Your task to perform on an android device: Open Chrome and go to settings Image 0: 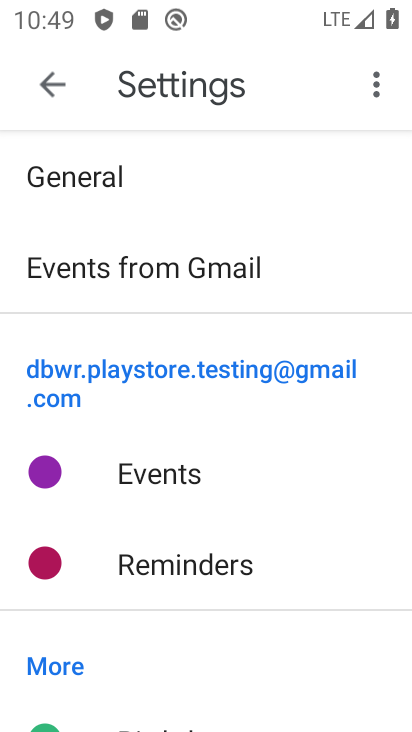
Step 0: press home button
Your task to perform on an android device: Open Chrome and go to settings Image 1: 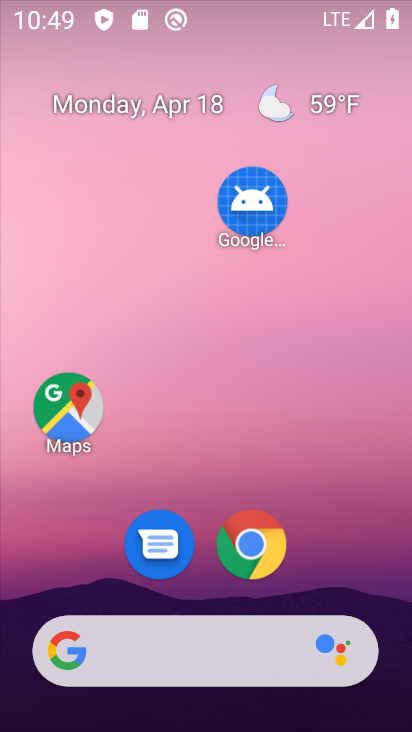
Step 1: drag from (209, 598) to (244, 166)
Your task to perform on an android device: Open Chrome and go to settings Image 2: 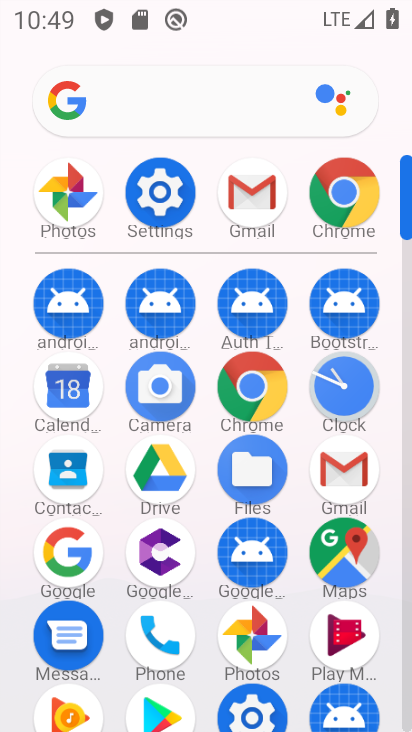
Step 2: click (243, 390)
Your task to perform on an android device: Open Chrome and go to settings Image 3: 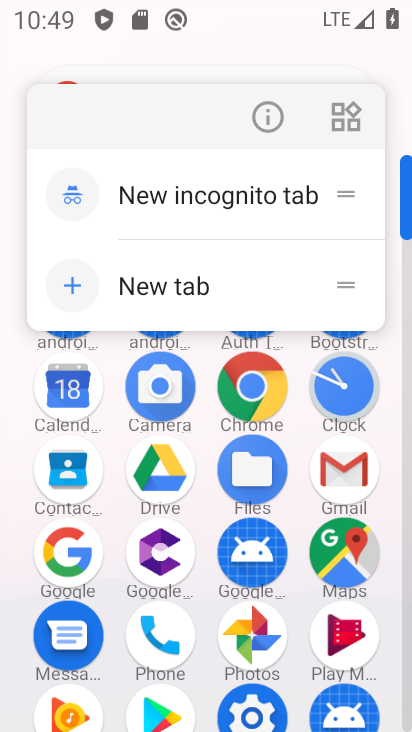
Step 3: click (255, 373)
Your task to perform on an android device: Open Chrome and go to settings Image 4: 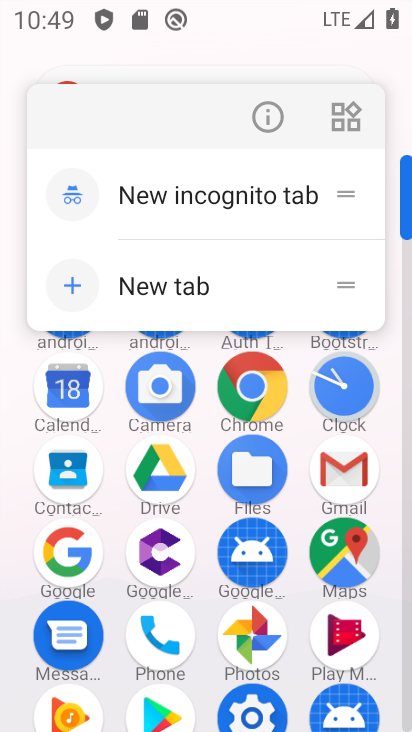
Step 4: click (253, 372)
Your task to perform on an android device: Open Chrome and go to settings Image 5: 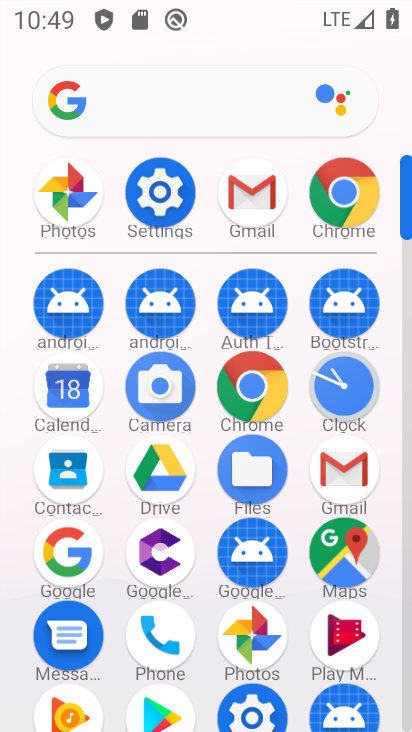
Step 5: click (253, 372)
Your task to perform on an android device: Open Chrome and go to settings Image 6: 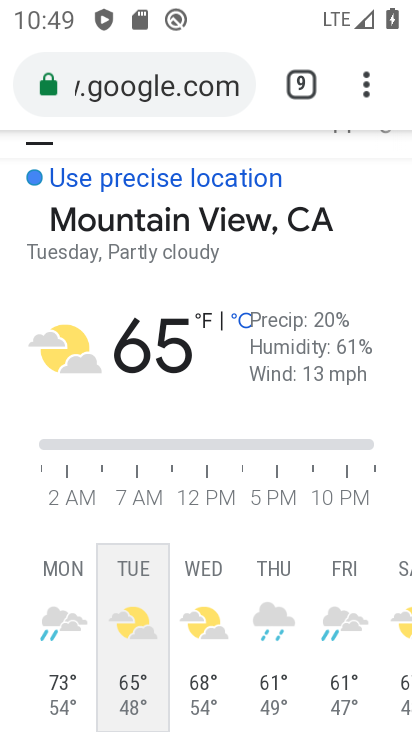
Step 6: click (369, 81)
Your task to perform on an android device: Open Chrome and go to settings Image 7: 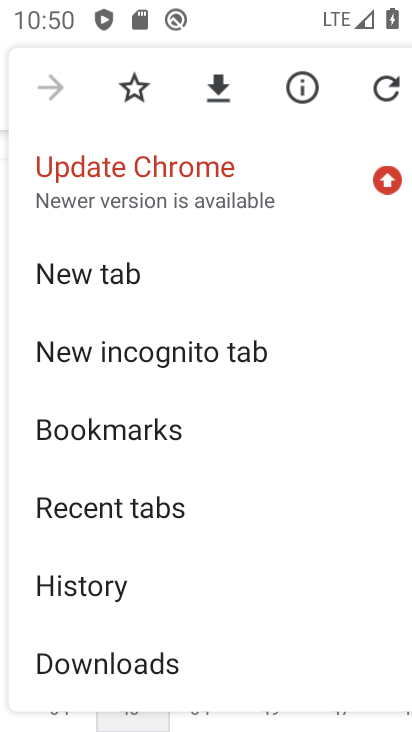
Step 7: drag from (243, 619) to (245, 180)
Your task to perform on an android device: Open Chrome and go to settings Image 8: 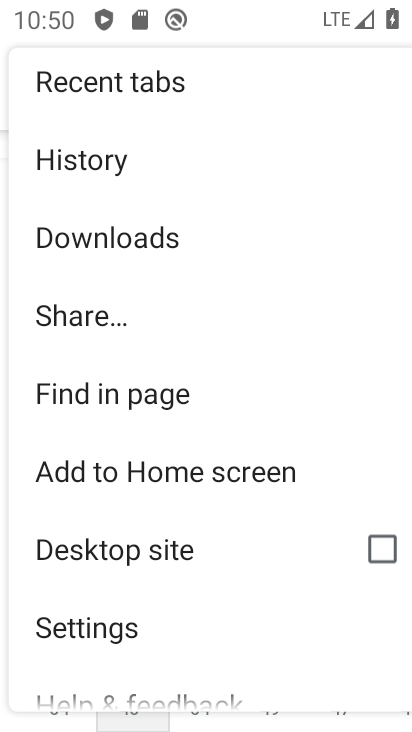
Step 8: click (110, 620)
Your task to perform on an android device: Open Chrome and go to settings Image 9: 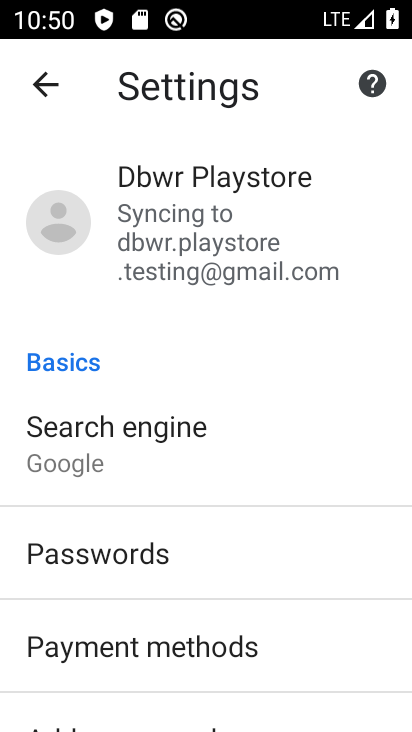
Step 9: task complete